Your task to perform on an android device: make emails show in primary in the gmail app Image 0: 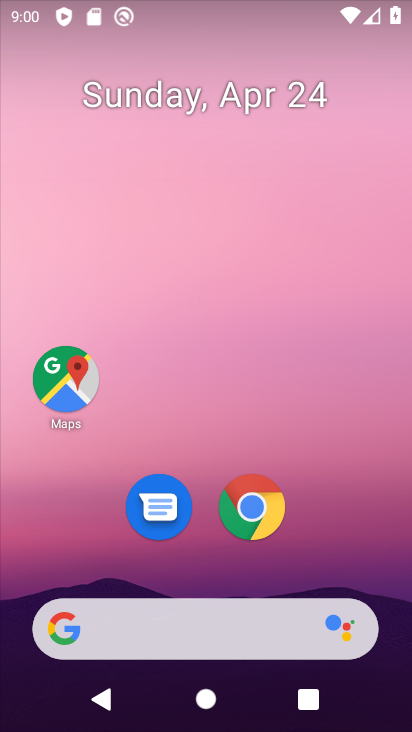
Step 0: drag from (344, 395) to (300, 42)
Your task to perform on an android device: make emails show in primary in the gmail app Image 1: 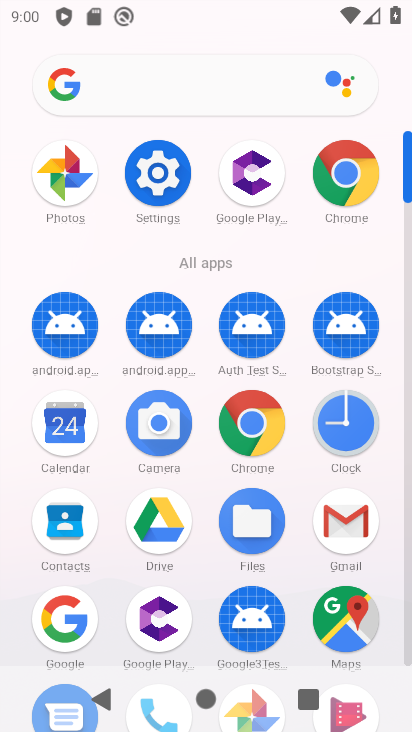
Step 1: click (343, 515)
Your task to perform on an android device: make emails show in primary in the gmail app Image 2: 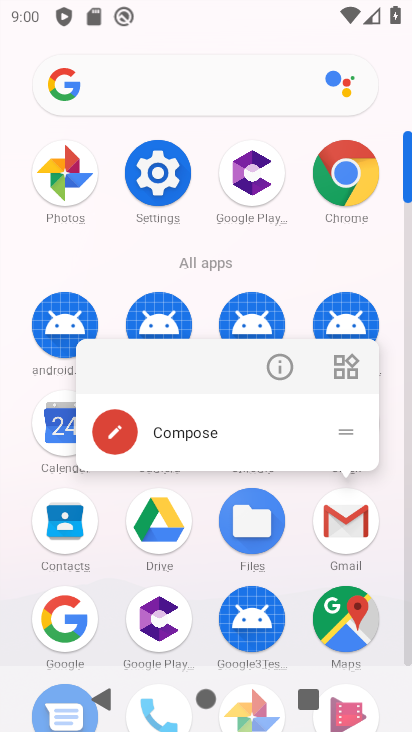
Step 2: click (343, 515)
Your task to perform on an android device: make emails show in primary in the gmail app Image 3: 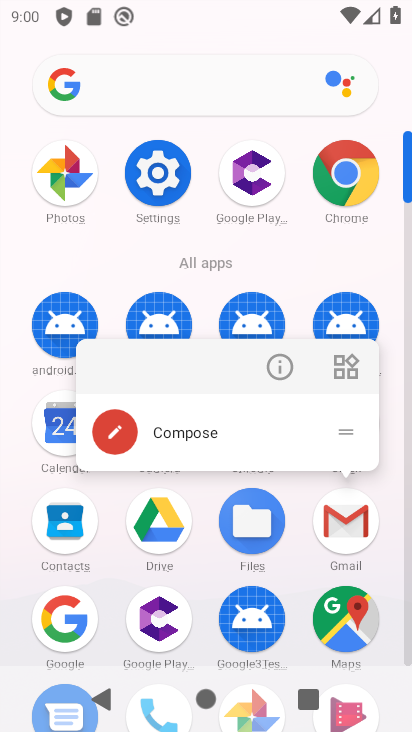
Step 3: click (343, 515)
Your task to perform on an android device: make emails show in primary in the gmail app Image 4: 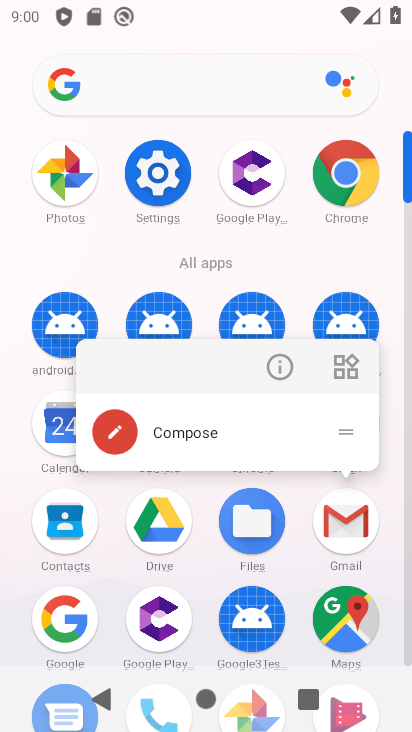
Step 4: click (342, 529)
Your task to perform on an android device: make emails show in primary in the gmail app Image 5: 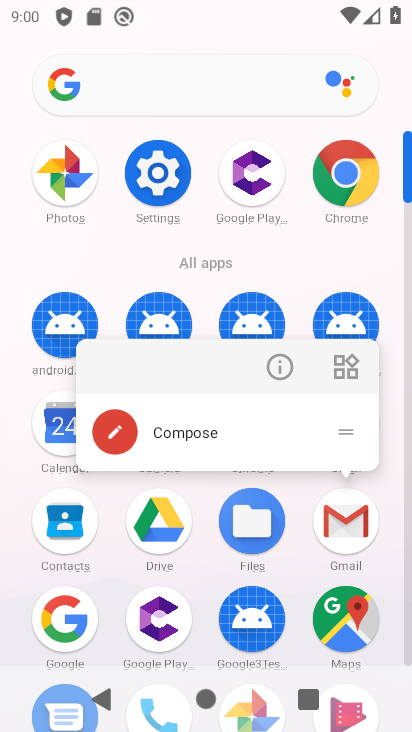
Step 5: click (342, 529)
Your task to perform on an android device: make emails show in primary in the gmail app Image 6: 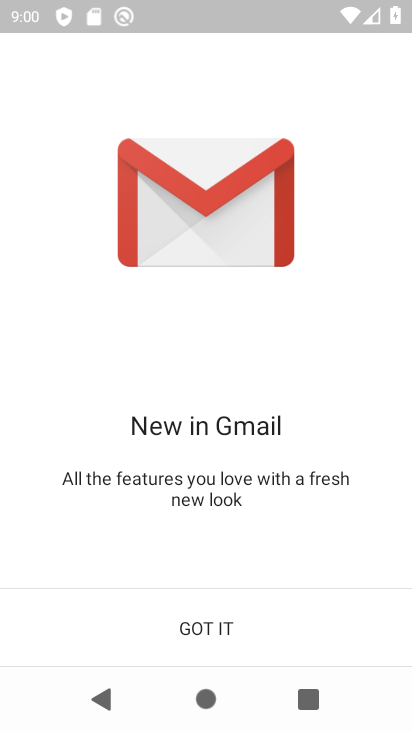
Step 6: click (206, 634)
Your task to perform on an android device: make emails show in primary in the gmail app Image 7: 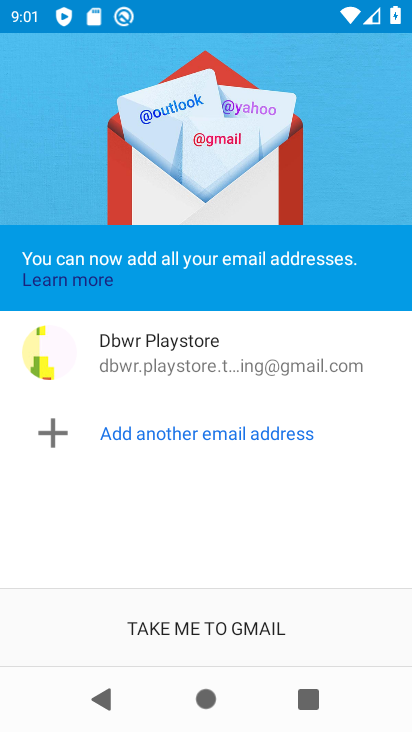
Step 7: click (206, 634)
Your task to perform on an android device: make emails show in primary in the gmail app Image 8: 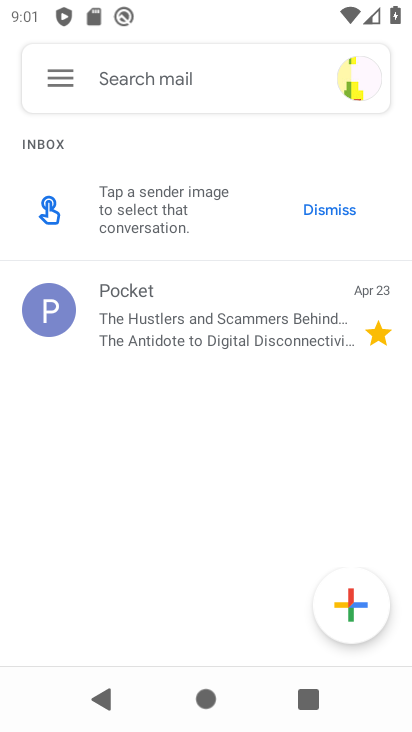
Step 8: click (50, 90)
Your task to perform on an android device: make emails show in primary in the gmail app Image 9: 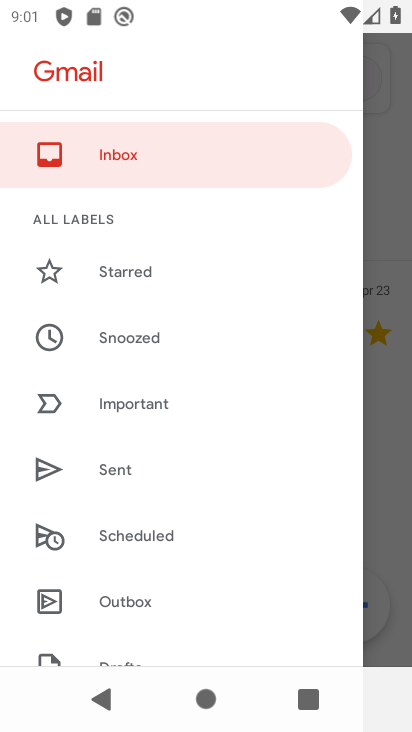
Step 9: drag from (192, 554) to (290, 107)
Your task to perform on an android device: make emails show in primary in the gmail app Image 10: 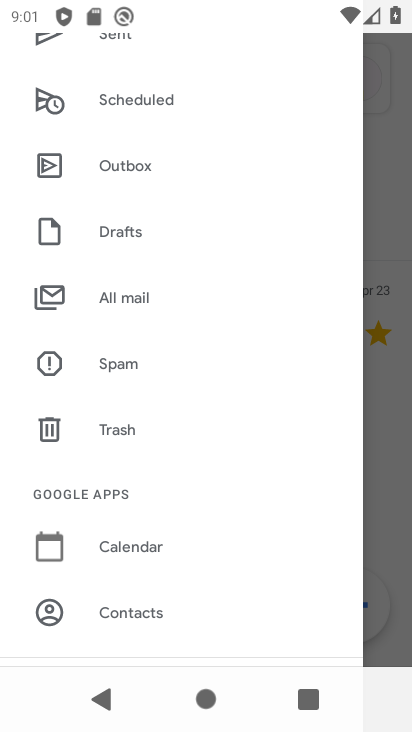
Step 10: drag from (185, 529) to (240, 143)
Your task to perform on an android device: make emails show in primary in the gmail app Image 11: 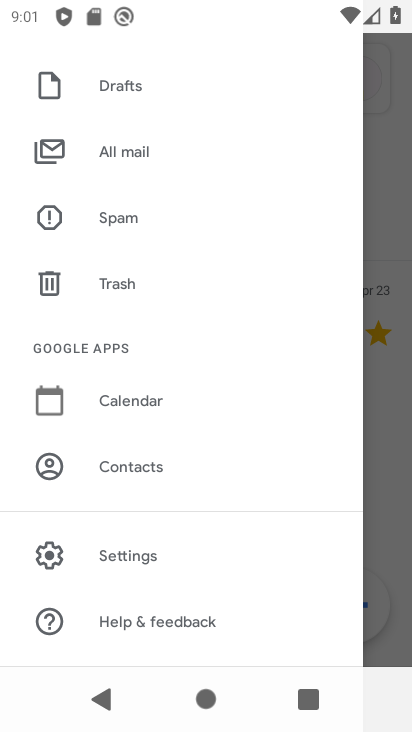
Step 11: click (121, 578)
Your task to perform on an android device: make emails show in primary in the gmail app Image 12: 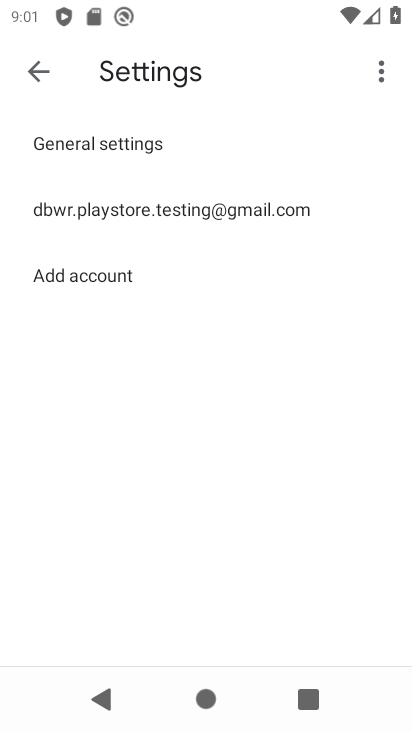
Step 12: click (120, 211)
Your task to perform on an android device: make emails show in primary in the gmail app Image 13: 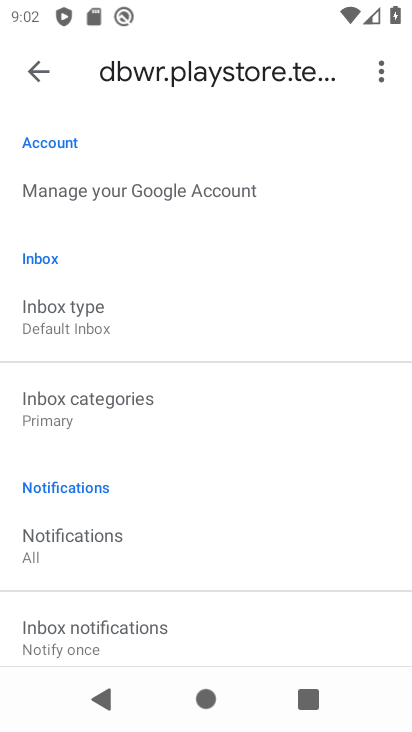
Step 13: task complete